Your task to perform on an android device: install app "Google Find My Device" Image 0: 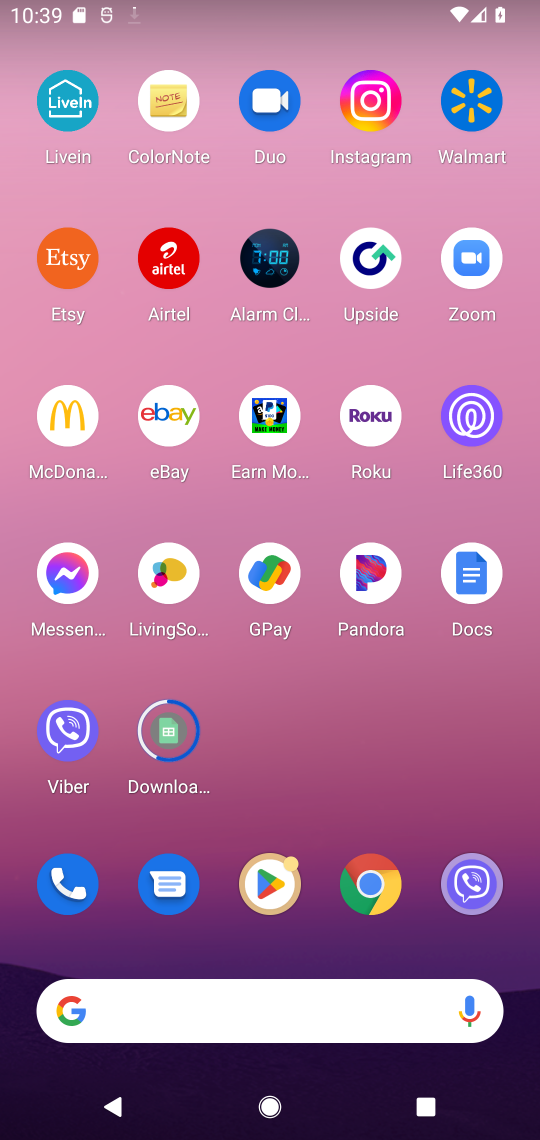
Step 0: click (271, 893)
Your task to perform on an android device: install app "Google Find My Device" Image 1: 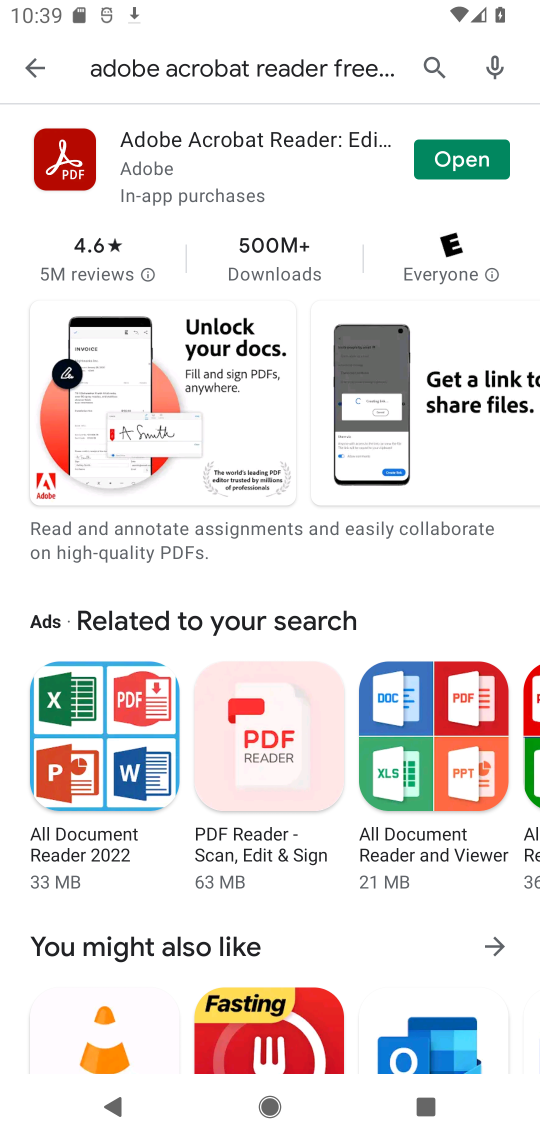
Step 1: click (432, 85)
Your task to perform on an android device: install app "Google Find My Device" Image 2: 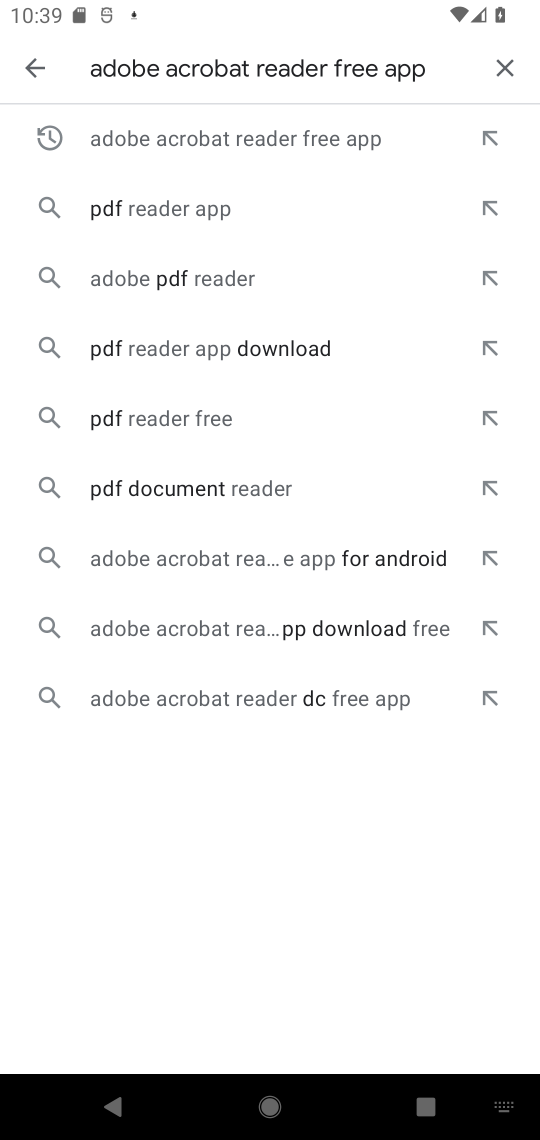
Step 2: click (509, 66)
Your task to perform on an android device: install app "Google Find My Device" Image 3: 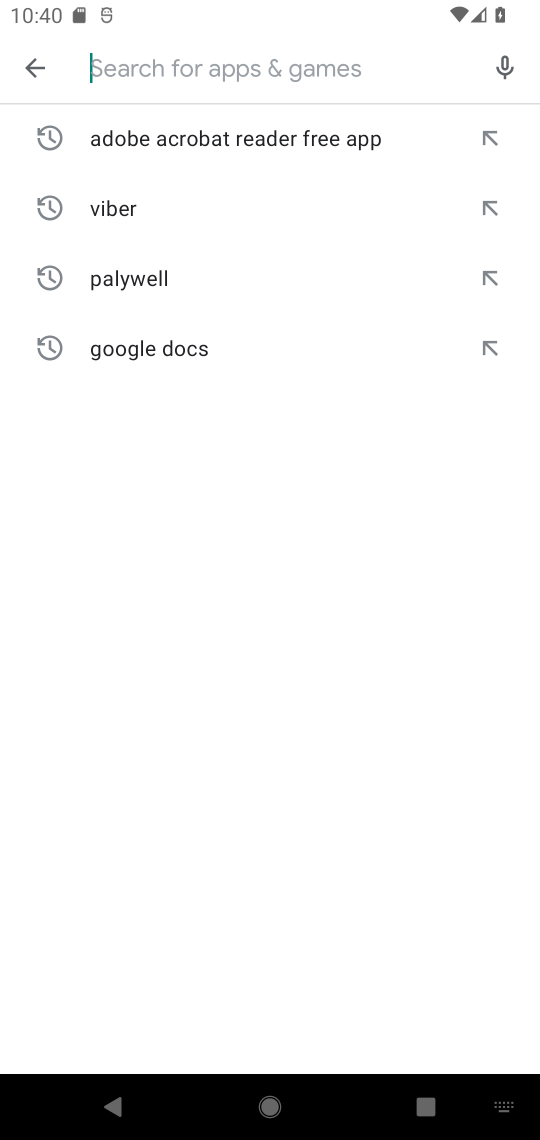
Step 3: type "fid my device"
Your task to perform on an android device: install app "Google Find My Device" Image 4: 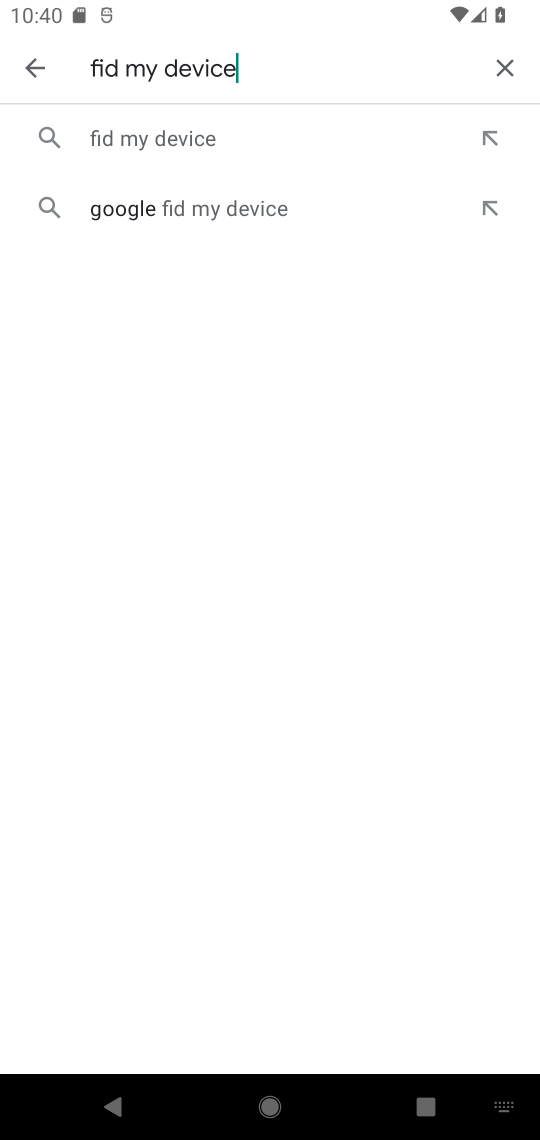
Step 4: type "s"
Your task to perform on an android device: install app "Google Find My Device" Image 5: 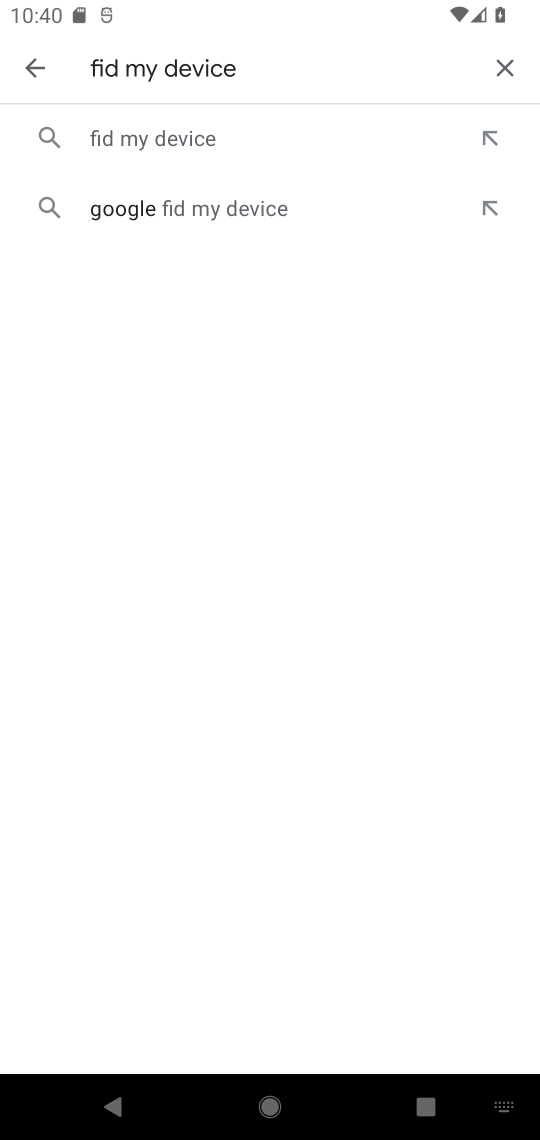
Step 5: click (116, 175)
Your task to perform on an android device: install app "Google Find My Device" Image 6: 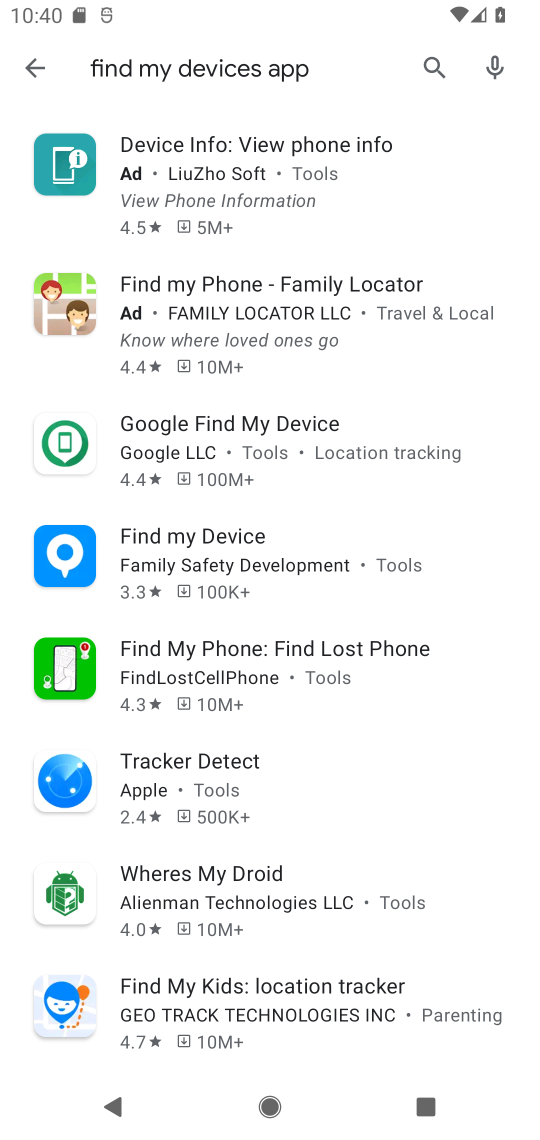
Step 6: click (239, 461)
Your task to perform on an android device: install app "Google Find My Device" Image 7: 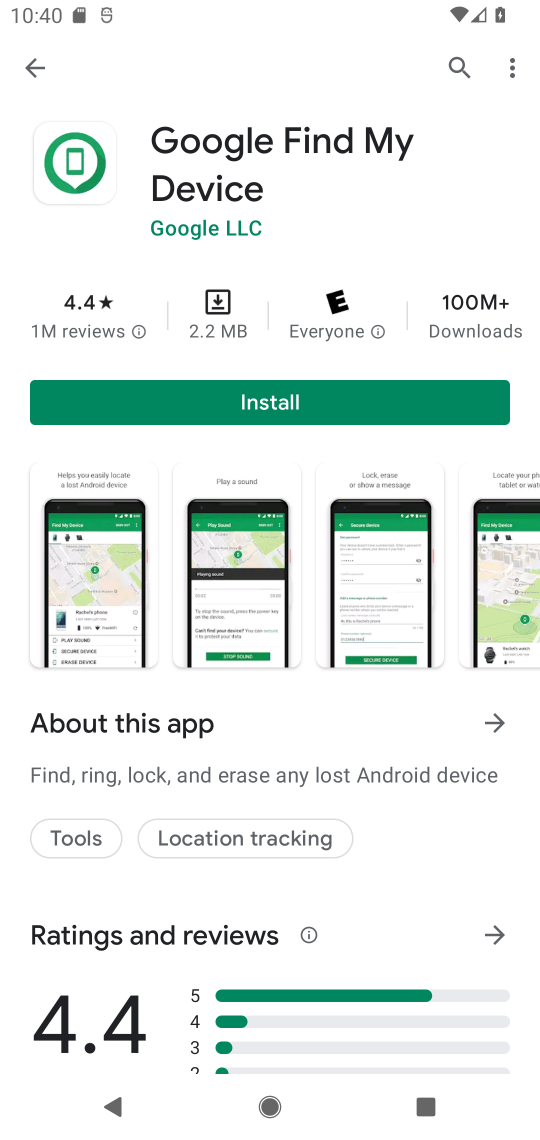
Step 7: click (402, 387)
Your task to perform on an android device: install app "Google Find My Device" Image 8: 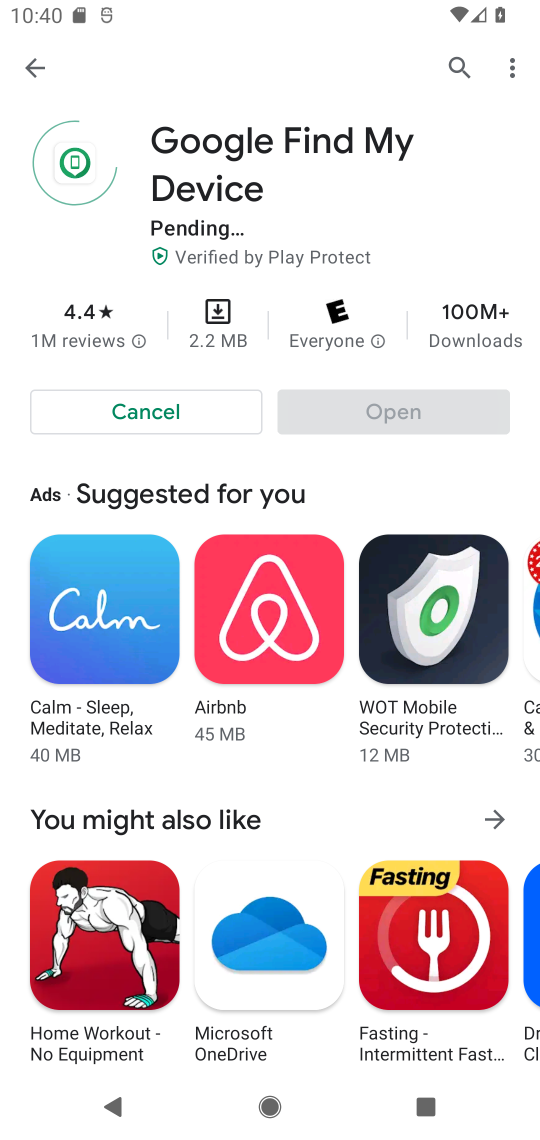
Step 8: task complete